Your task to perform on an android device: turn smart compose on in the gmail app Image 0: 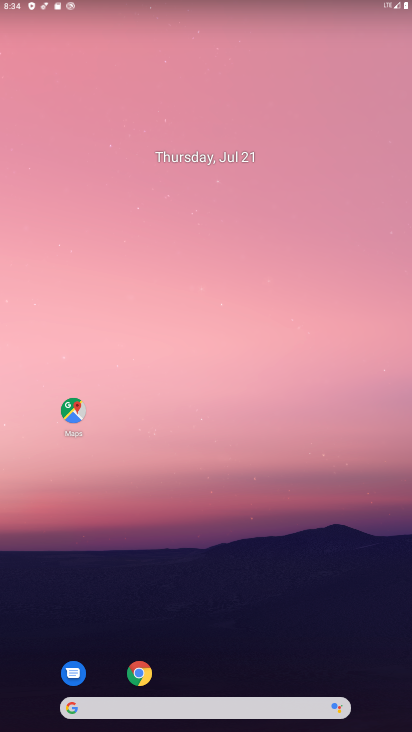
Step 0: drag from (188, 629) to (190, 160)
Your task to perform on an android device: turn smart compose on in the gmail app Image 1: 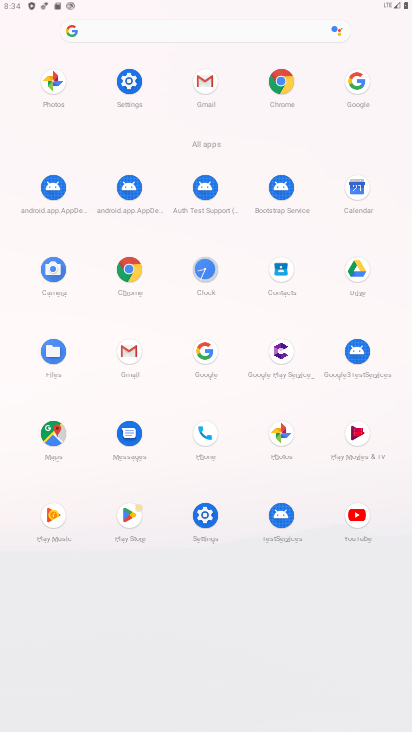
Step 1: click (220, 100)
Your task to perform on an android device: turn smart compose on in the gmail app Image 2: 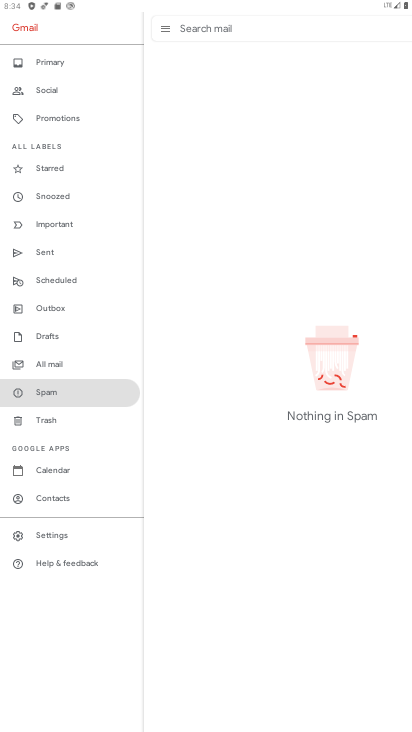
Step 2: click (89, 539)
Your task to perform on an android device: turn smart compose on in the gmail app Image 3: 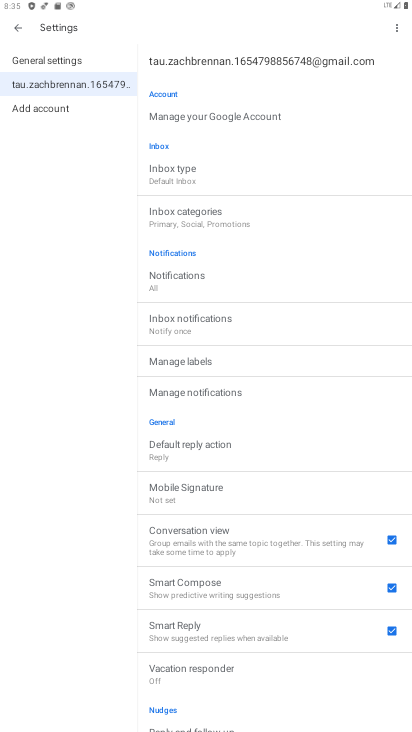
Step 3: task complete